Your task to perform on an android device: visit the assistant section in the google photos Image 0: 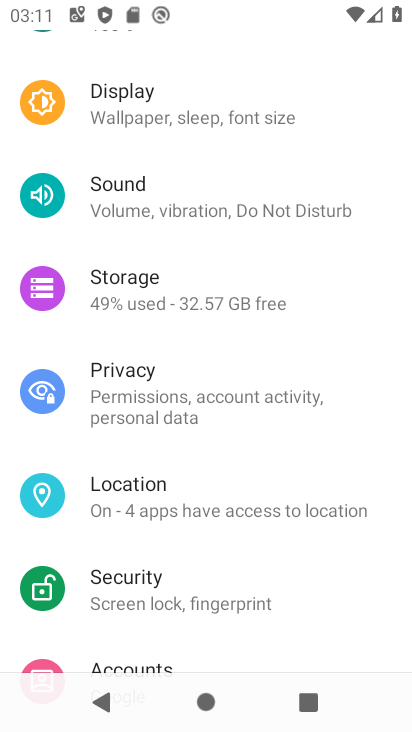
Step 0: press home button
Your task to perform on an android device: visit the assistant section in the google photos Image 1: 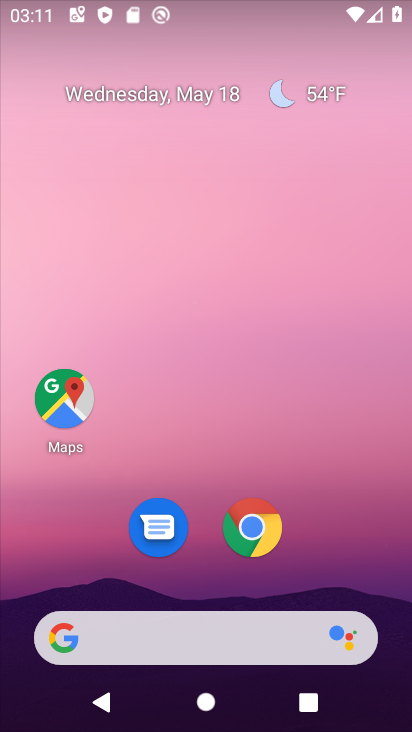
Step 1: drag from (252, 593) to (340, 41)
Your task to perform on an android device: visit the assistant section in the google photos Image 2: 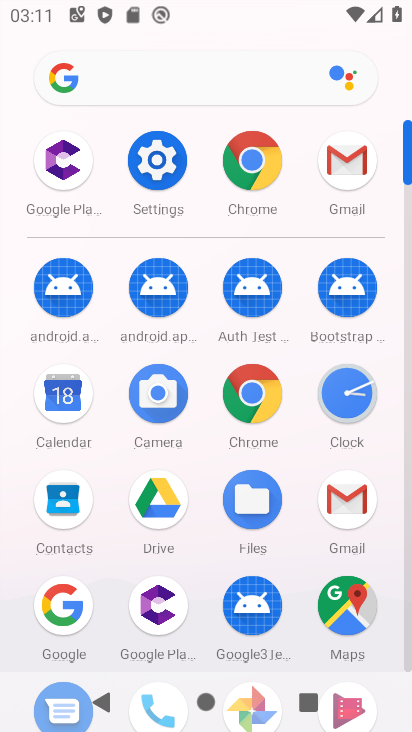
Step 2: drag from (205, 656) to (218, 118)
Your task to perform on an android device: visit the assistant section in the google photos Image 3: 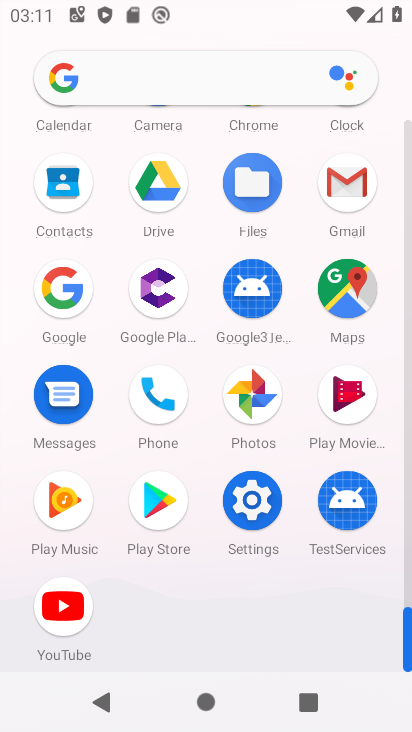
Step 3: click (259, 412)
Your task to perform on an android device: visit the assistant section in the google photos Image 4: 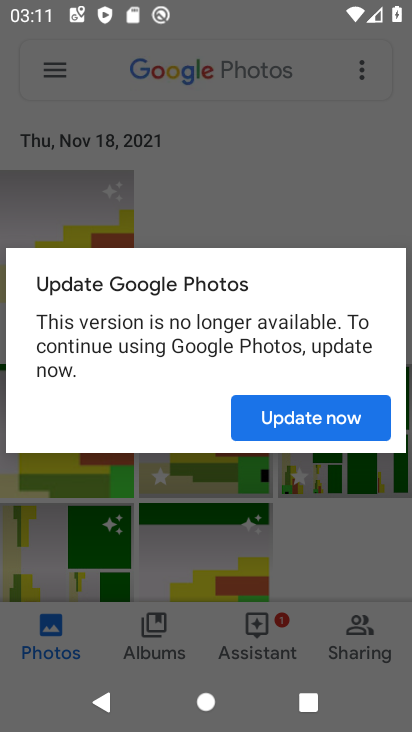
Step 4: click (292, 415)
Your task to perform on an android device: visit the assistant section in the google photos Image 5: 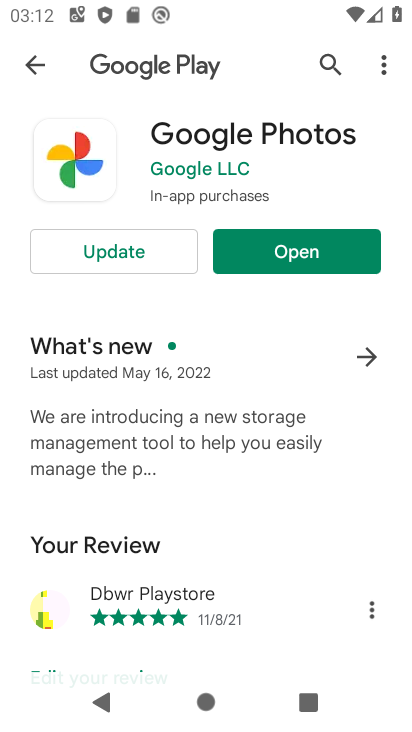
Step 5: click (273, 246)
Your task to perform on an android device: visit the assistant section in the google photos Image 6: 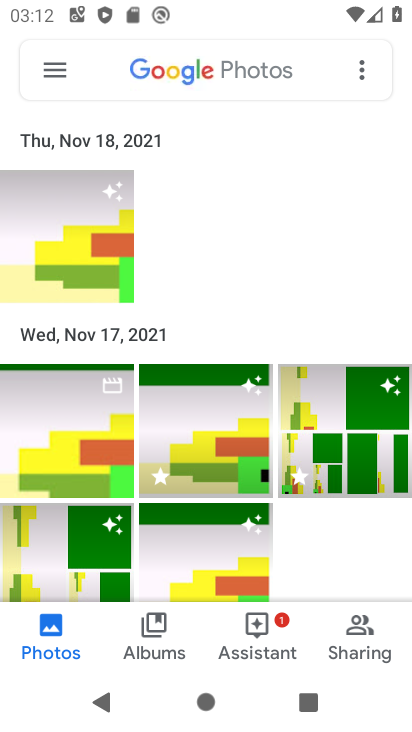
Step 6: click (251, 637)
Your task to perform on an android device: visit the assistant section in the google photos Image 7: 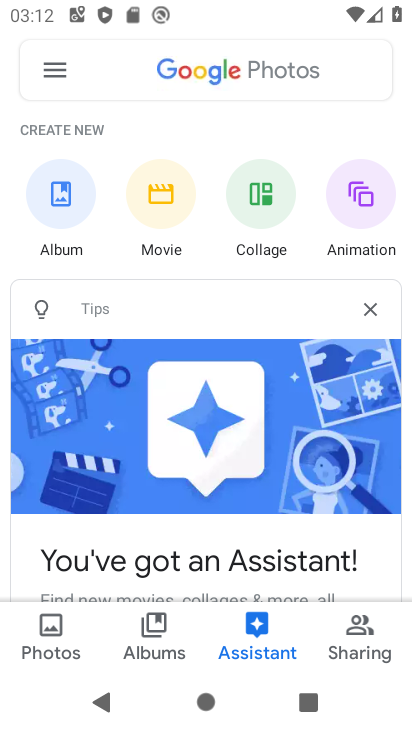
Step 7: task complete